Your task to perform on an android device: find photos in the google photos app Image 0: 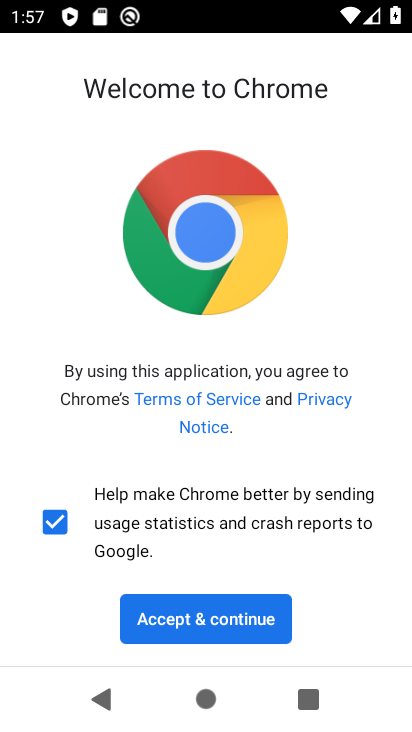
Step 0: click (222, 648)
Your task to perform on an android device: find photos in the google photos app Image 1: 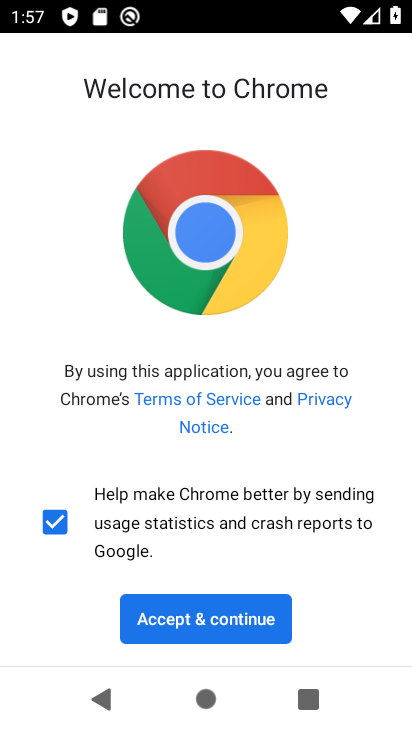
Step 1: click (217, 621)
Your task to perform on an android device: find photos in the google photos app Image 2: 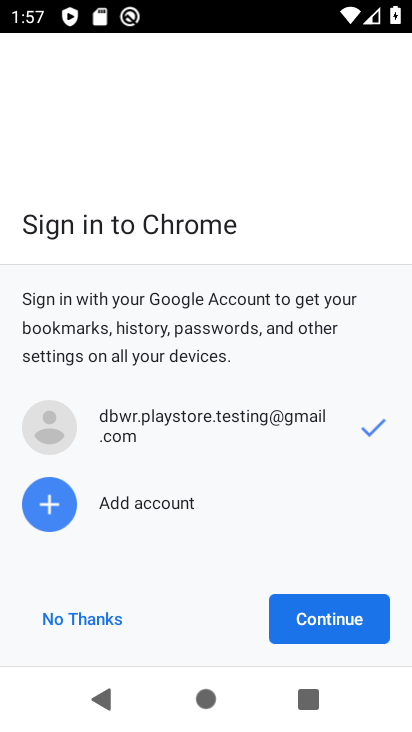
Step 2: click (344, 612)
Your task to perform on an android device: find photos in the google photos app Image 3: 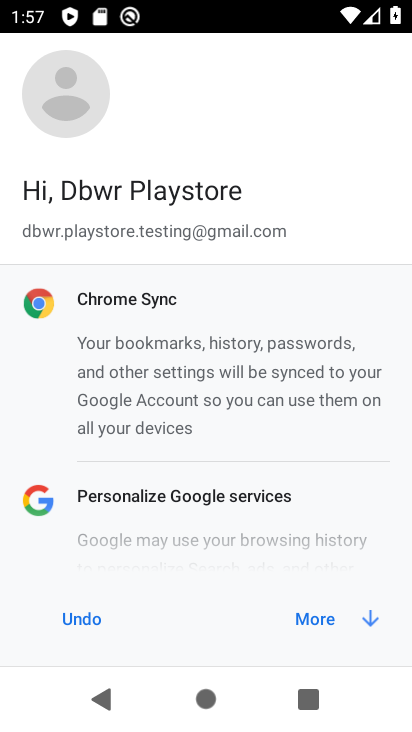
Step 3: click (330, 620)
Your task to perform on an android device: find photos in the google photos app Image 4: 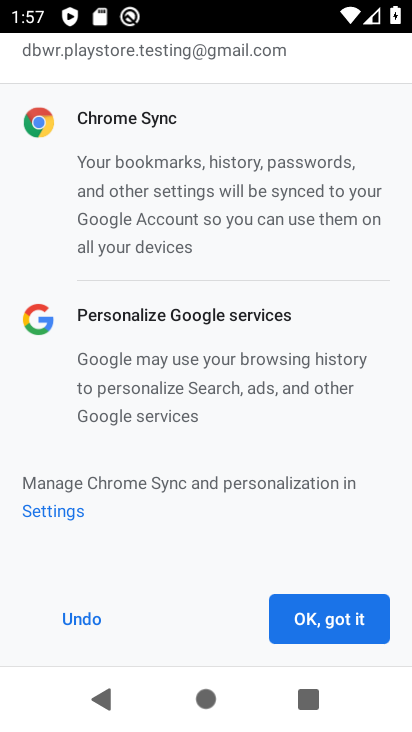
Step 4: click (330, 620)
Your task to perform on an android device: find photos in the google photos app Image 5: 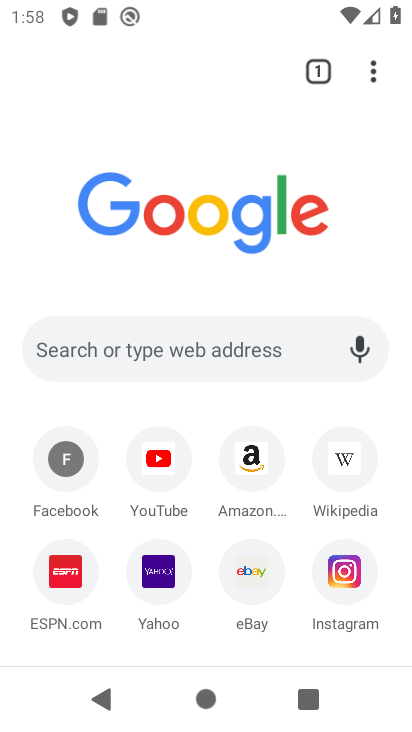
Step 5: task complete